Your task to perform on an android device: change the clock display to digital Image 0: 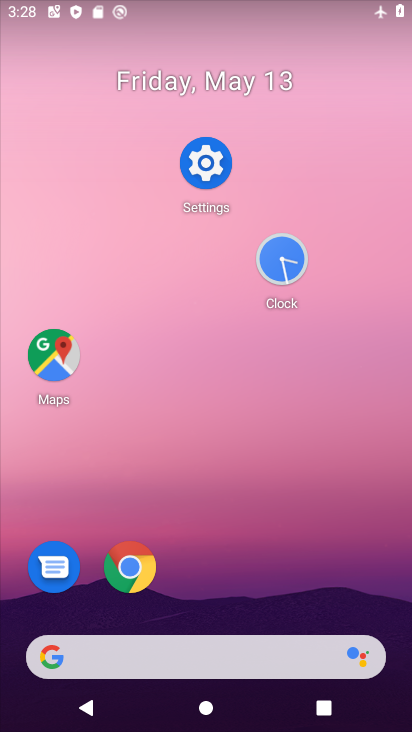
Step 0: drag from (269, 636) to (298, 479)
Your task to perform on an android device: change the clock display to digital Image 1: 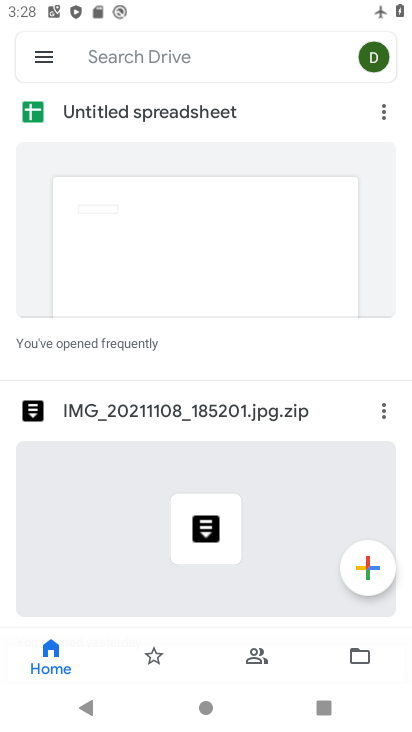
Step 1: press home button
Your task to perform on an android device: change the clock display to digital Image 2: 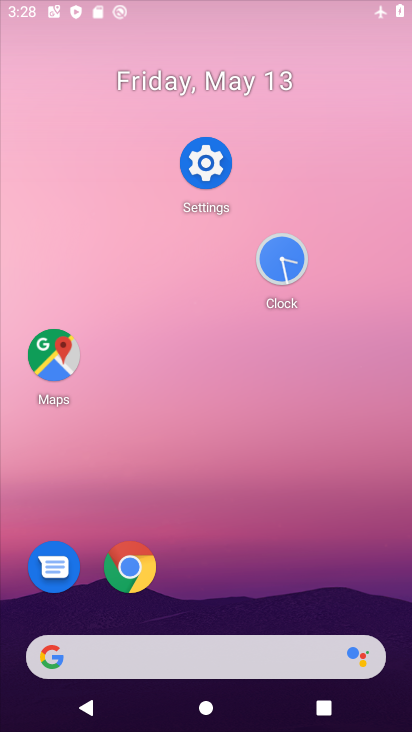
Step 2: drag from (223, 591) to (187, 6)
Your task to perform on an android device: change the clock display to digital Image 3: 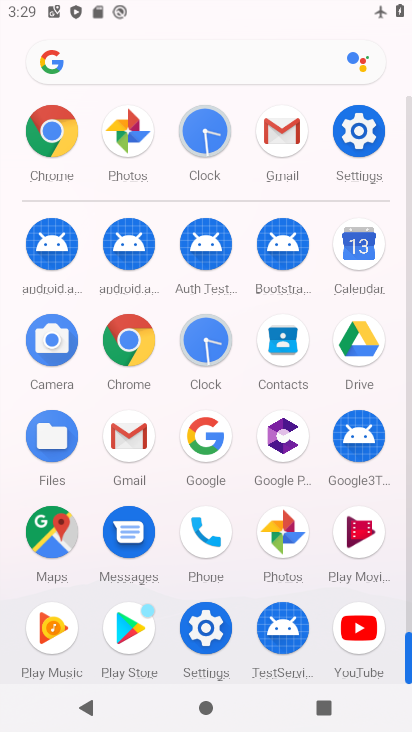
Step 3: click (191, 175)
Your task to perform on an android device: change the clock display to digital Image 4: 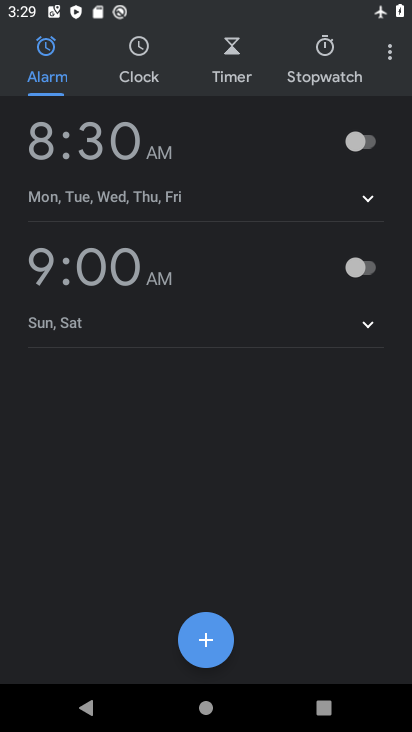
Step 4: click (383, 64)
Your task to perform on an android device: change the clock display to digital Image 5: 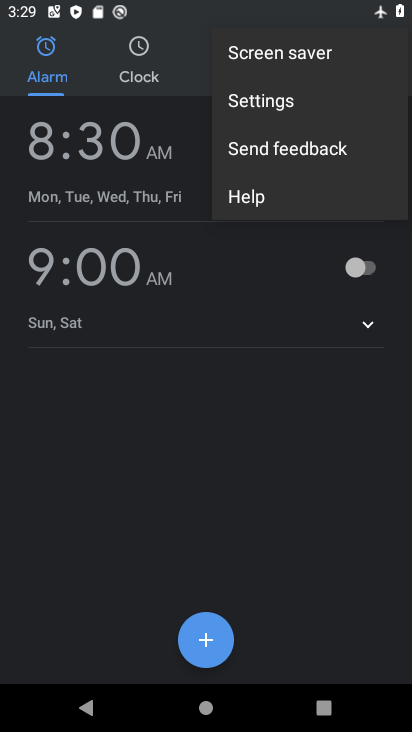
Step 5: click (323, 97)
Your task to perform on an android device: change the clock display to digital Image 6: 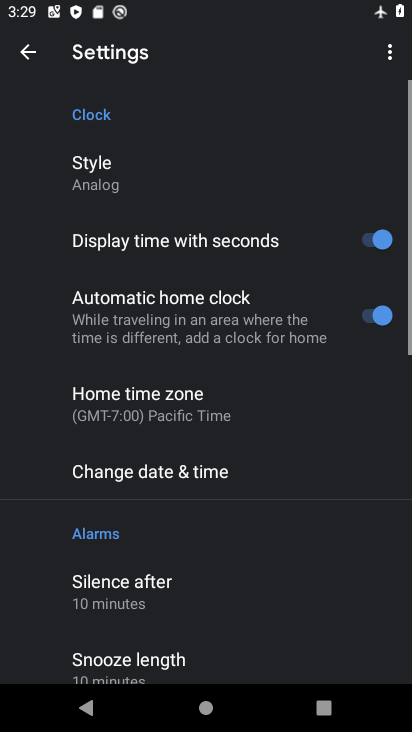
Step 6: click (179, 145)
Your task to perform on an android device: change the clock display to digital Image 7: 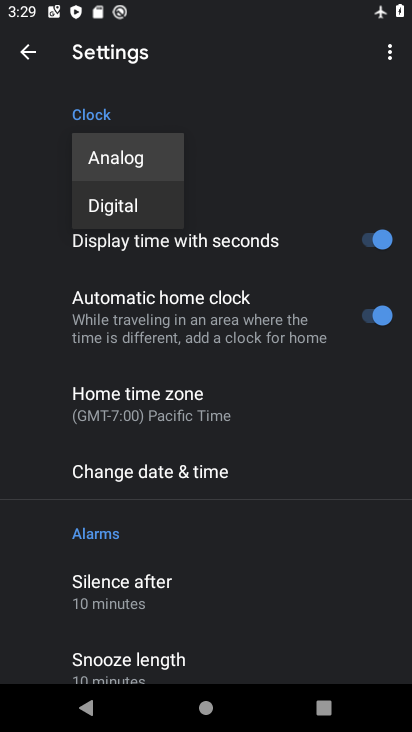
Step 7: click (133, 205)
Your task to perform on an android device: change the clock display to digital Image 8: 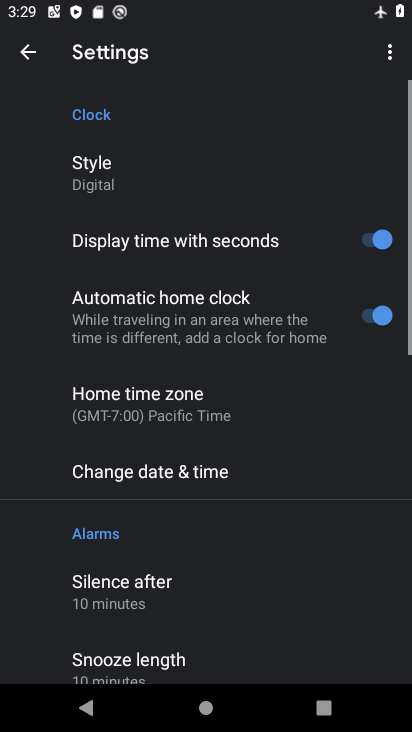
Step 8: task complete